Your task to perform on an android device: turn on the 24-hour format for clock Image 0: 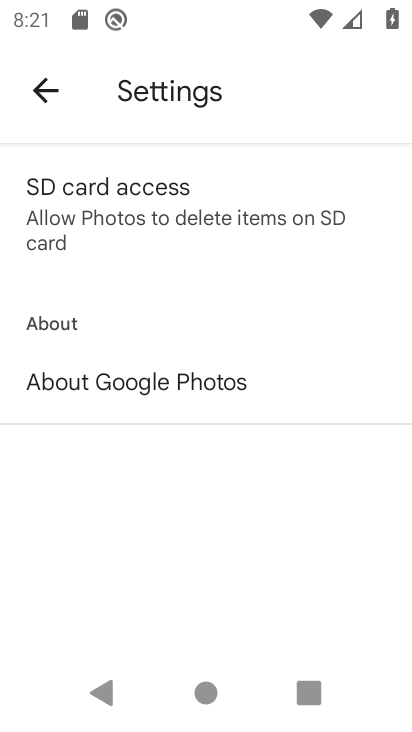
Step 0: press home button
Your task to perform on an android device: turn on the 24-hour format for clock Image 1: 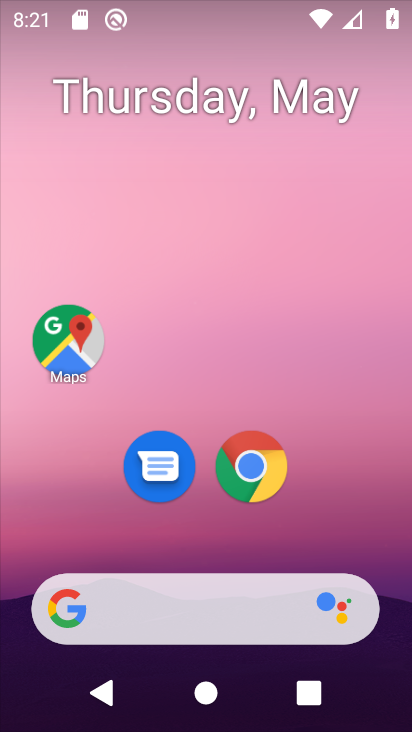
Step 1: drag from (312, 528) to (321, 9)
Your task to perform on an android device: turn on the 24-hour format for clock Image 2: 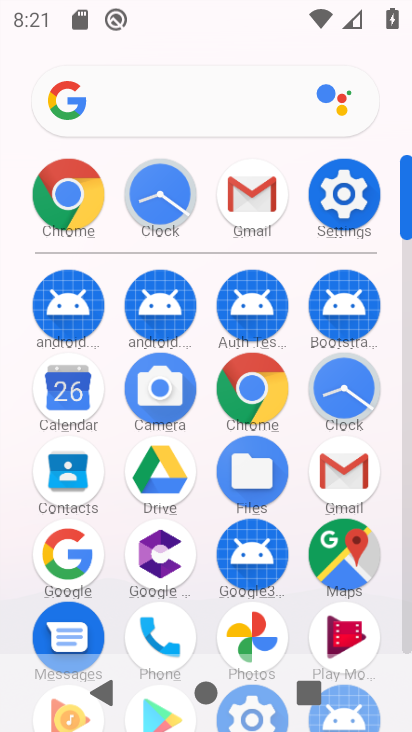
Step 2: click (343, 166)
Your task to perform on an android device: turn on the 24-hour format for clock Image 3: 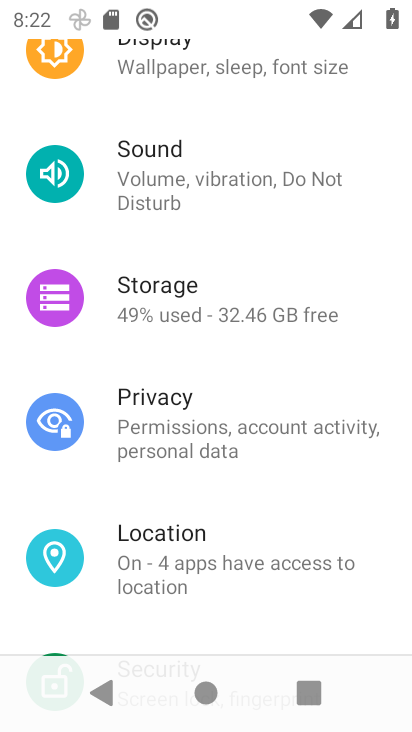
Step 3: press home button
Your task to perform on an android device: turn on the 24-hour format for clock Image 4: 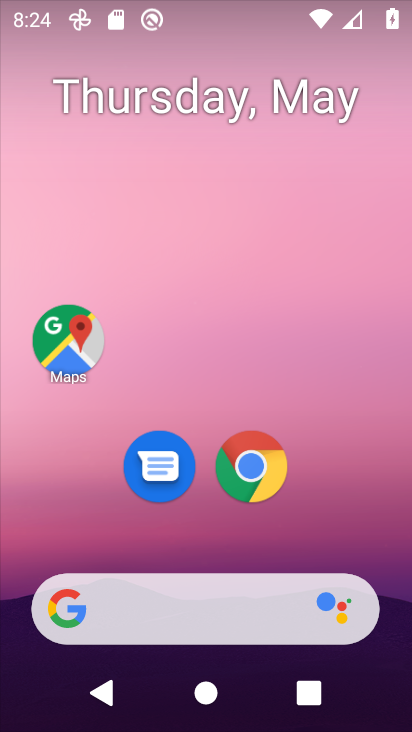
Step 4: drag from (346, 527) to (359, 128)
Your task to perform on an android device: turn on the 24-hour format for clock Image 5: 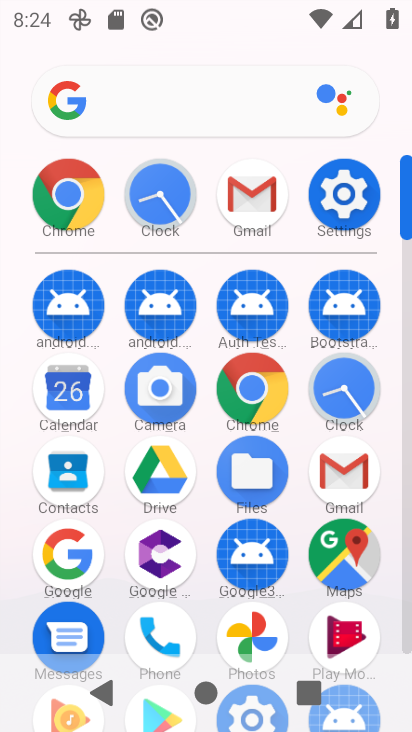
Step 5: click (166, 201)
Your task to perform on an android device: turn on the 24-hour format for clock Image 6: 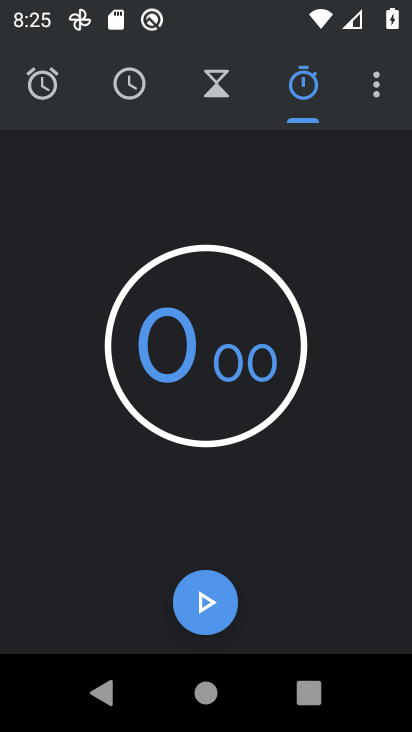
Step 6: click (389, 93)
Your task to perform on an android device: turn on the 24-hour format for clock Image 7: 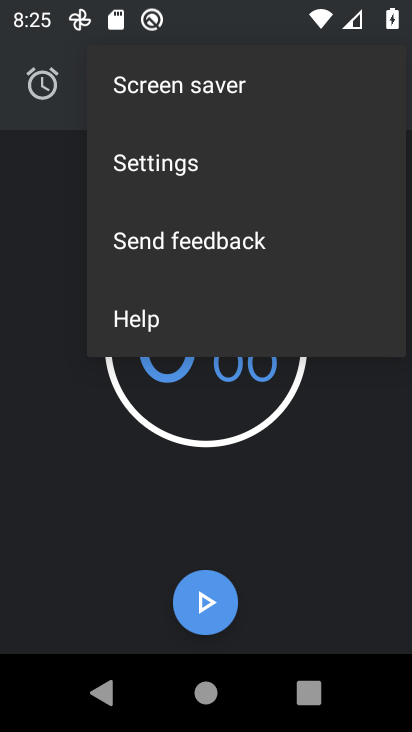
Step 7: click (184, 167)
Your task to perform on an android device: turn on the 24-hour format for clock Image 8: 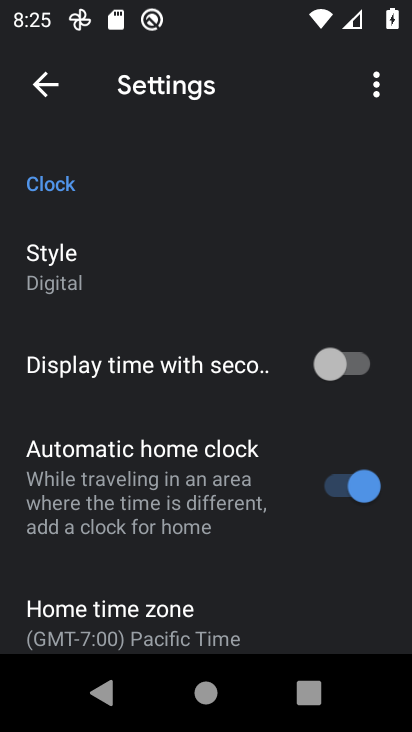
Step 8: drag from (155, 552) to (232, 291)
Your task to perform on an android device: turn on the 24-hour format for clock Image 9: 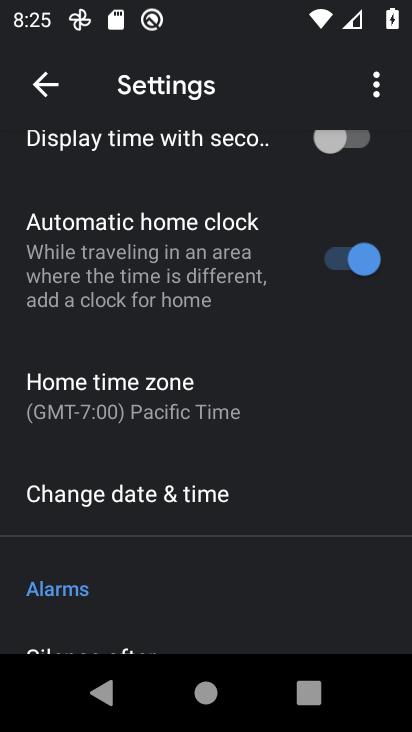
Step 9: click (196, 521)
Your task to perform on an android device: turn on the 24-hour format for clock Image 10: 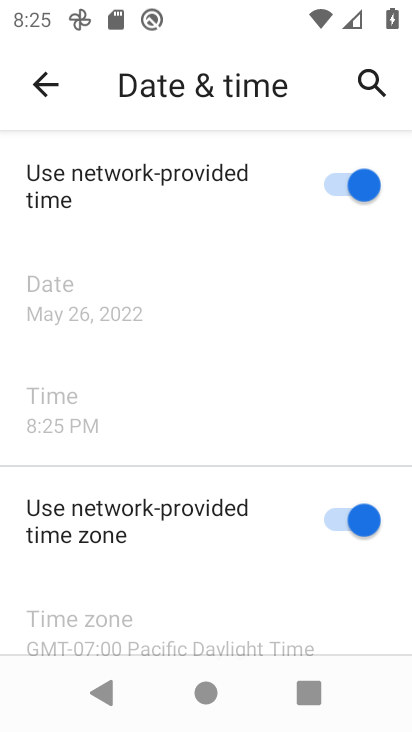
Step 10: drag from (295, 577) to (322, 164)
Your task to perform on an android device: turn on the 24-hour format for clock Image 11: 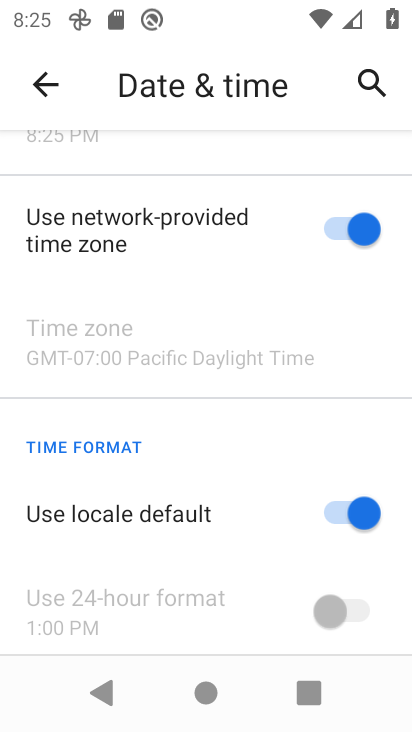
Step 11: click (369, 507)
Your task to perform on an android device: turn on the 24-hour format for clock Image 12: 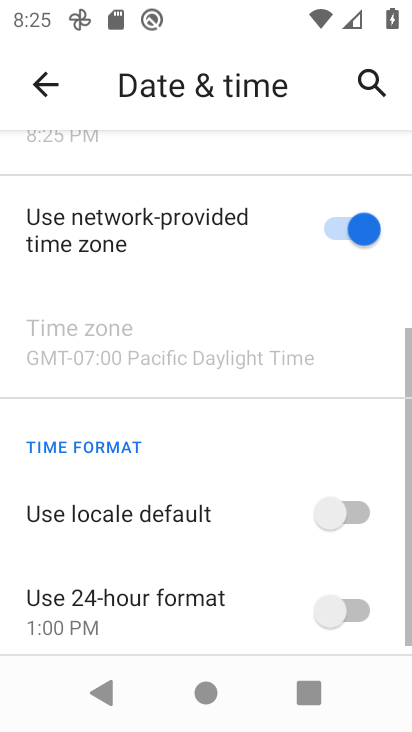
Step 12: click (337, 591)
Your task to perform on an android device: turn on the 24-hour format for clock Image 13: 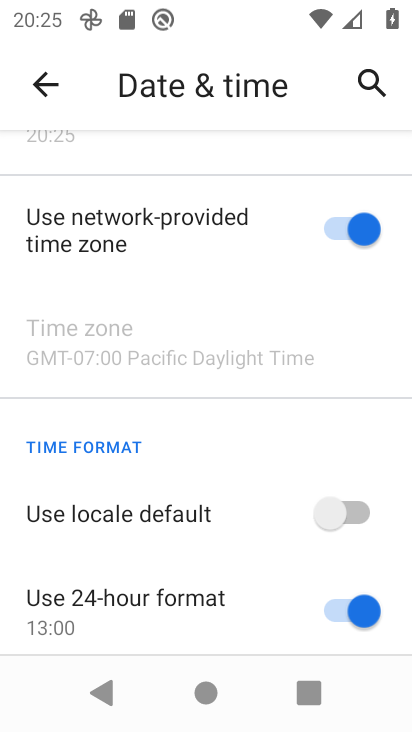
Step 13: task complete